Your task to perform on an android device: Do I have any events today? Image 0: 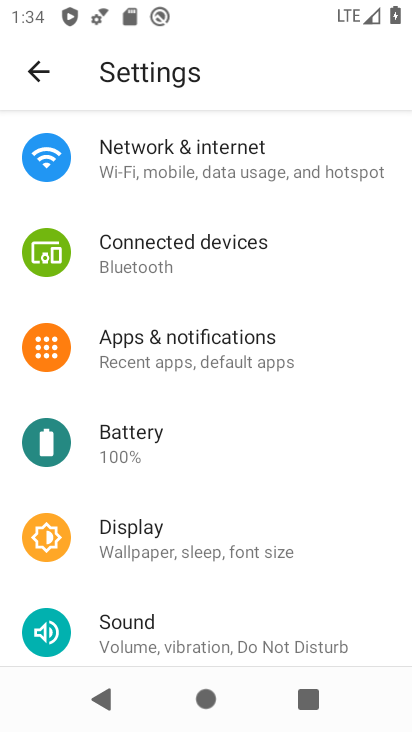
Step 0: press home button
Your task to perform on an android device: Do I have any events today? Image 1: 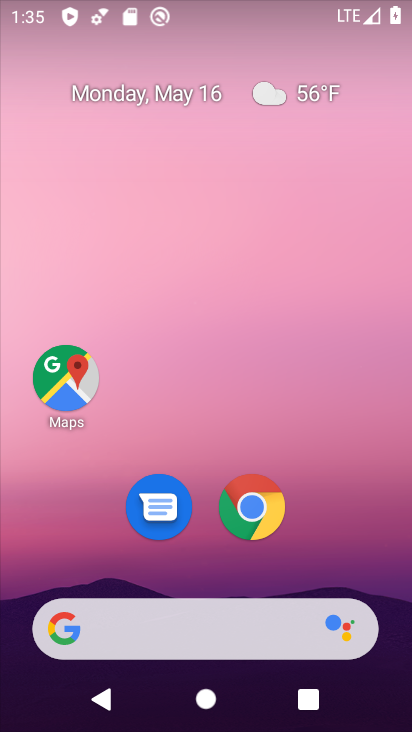
Step 1: drag from (196, 563) to (211, 185)
Your task to perform on an android device: Do I have any events today? Image 2: 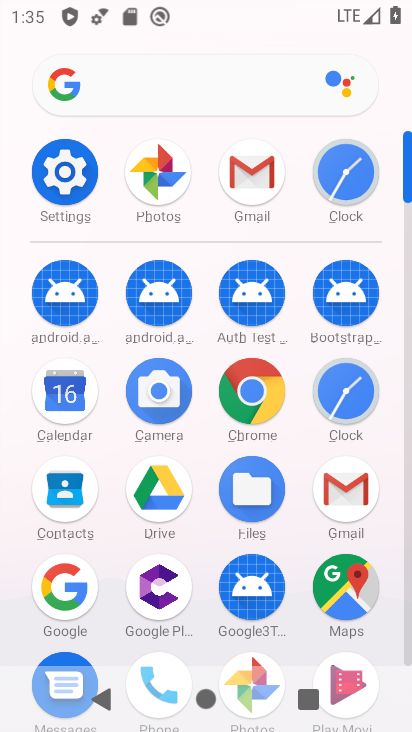
Step 2: click (77, 397)
Your task to perform on an android device: Do I have any events today? Image 3: 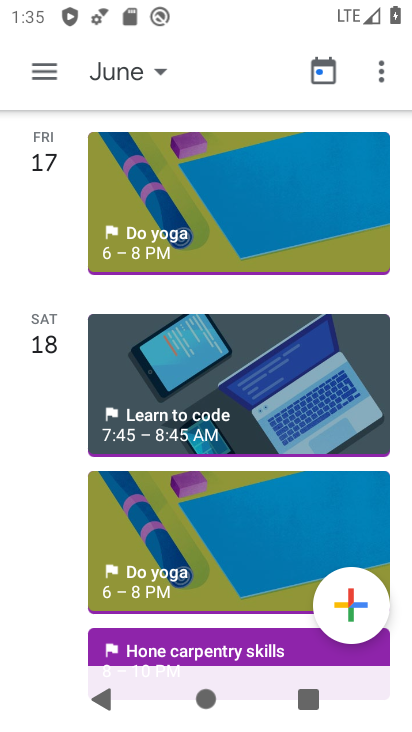
Step 3: click (163, 68)
Your task to perform on an android device: Do I have any events today? Image 4: 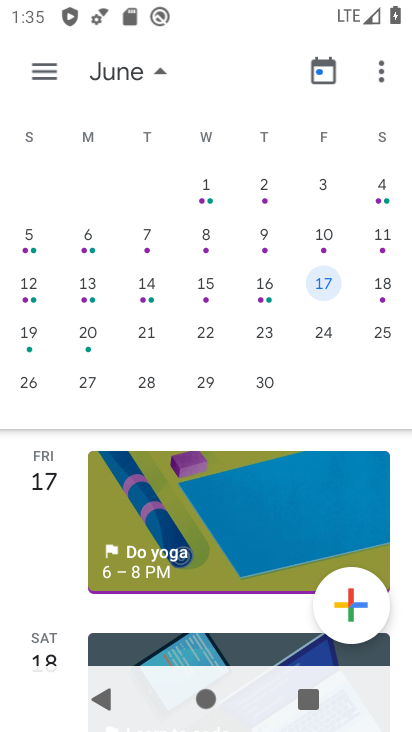
Step 4: drag from (93, 255) to (366, 255)
Your task to perform on an android device: Do I have any events today? Image 5: 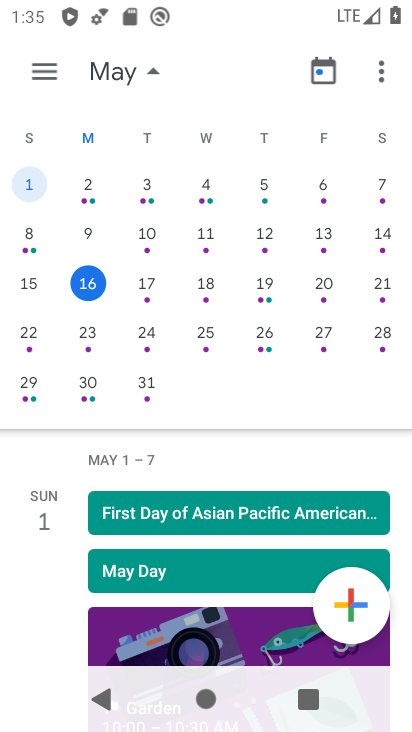
Step 5: click (85, 290)
Your task to perform on an android device: Do I have any events today? Image 6: 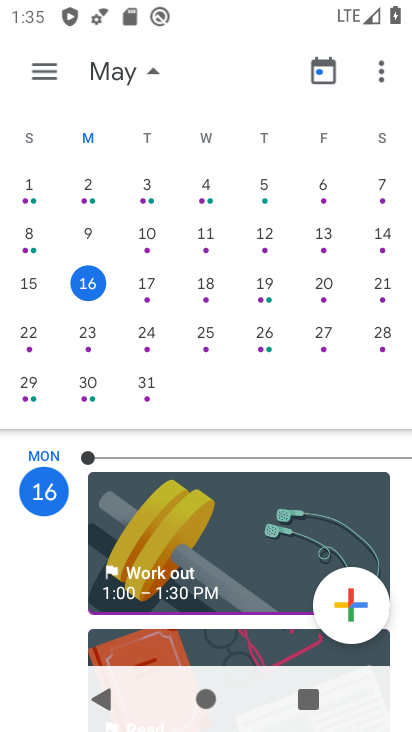
Step 6: task complete